Your task to perform on an android device: toggle show notifications on the lock screen Image 0: 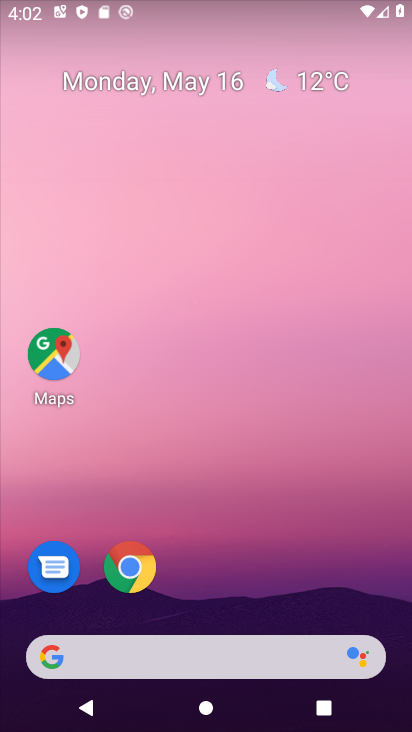
Step 0: drag from (329, 455) to (56, 17)
Your task to perform on an android device: toggle show notifications on the lock screen Image 1: 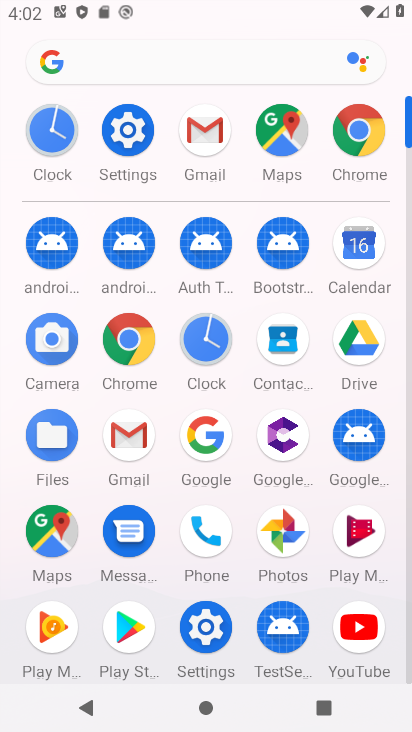
Step 1: drag from (6, 516) to (0, 266)
Your task to perform on an android device: toggle show notifications on the lock screen Image 2: 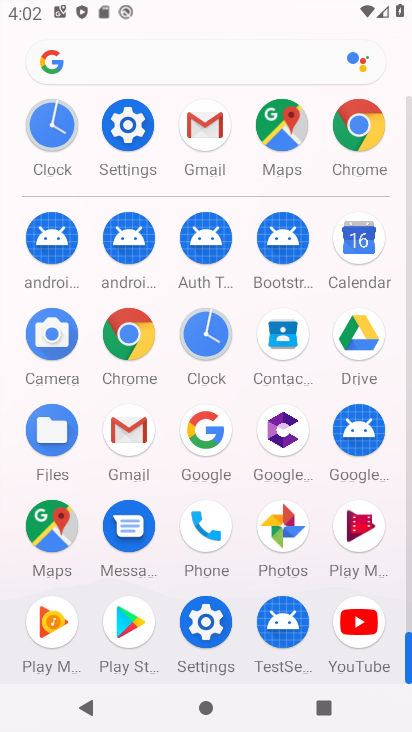
Step 2: click (204, 621)
Your task to perform on an android device: toggle show notifications on the lock screen Image 3: 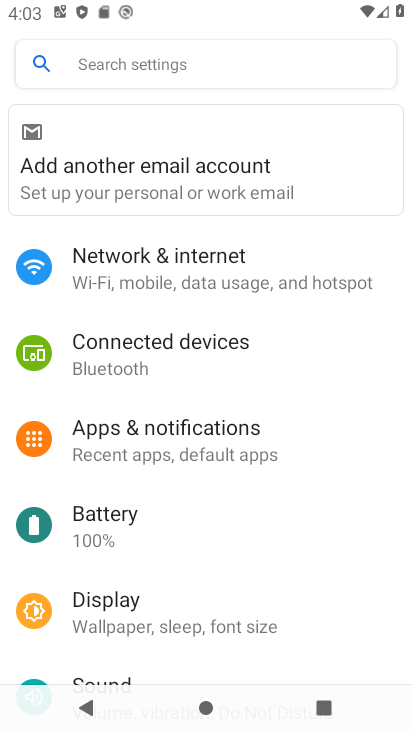
Step 3: click (227, 432)
Your task to perform on an android device: toggle show notifications on the lock screen Image 4: 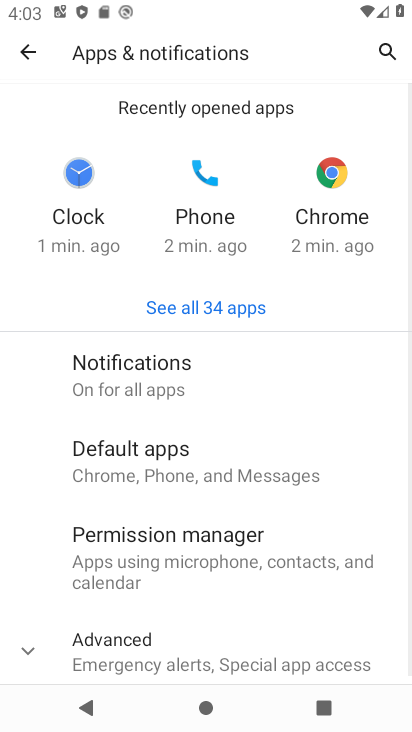
Step 4: click (207, 372)
Your task to perform on an android device: toggle show notifications on the lock screen Image 5: 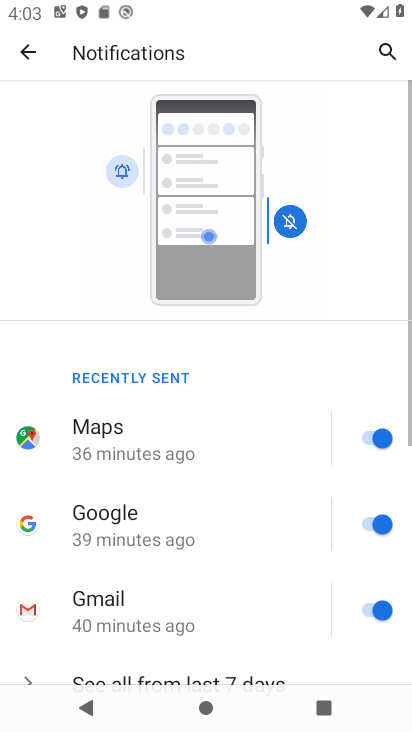
Step 5: drag from (206, 552) to (209, 130)
Your task to perform on an android device: toggle show notifications on the lock screen Image 6: 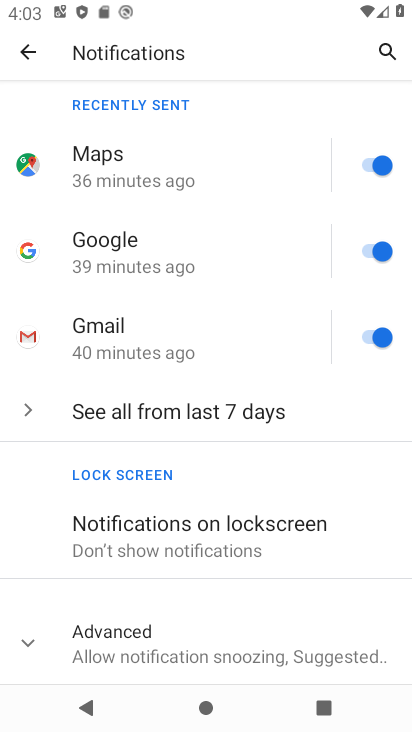
Step 6: drag from (208, 592) to (208, 222)
Your task to perform on an android device: toggle show notifications on the lock screen Image 7: 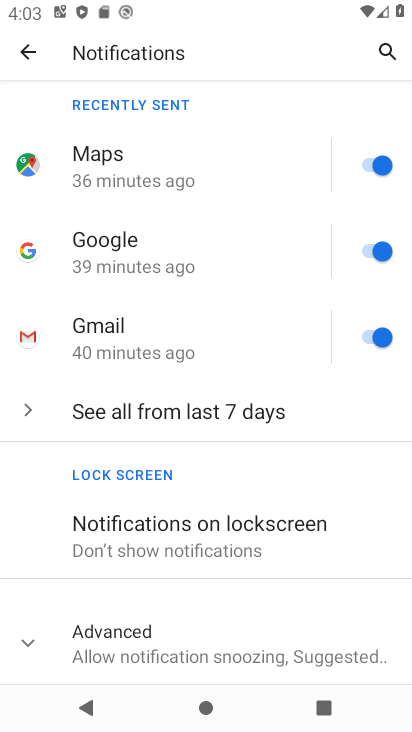
Step 7: click (39, 642)
Your task to perform on an android device: toggle show notifications on the lock screen Image 8: 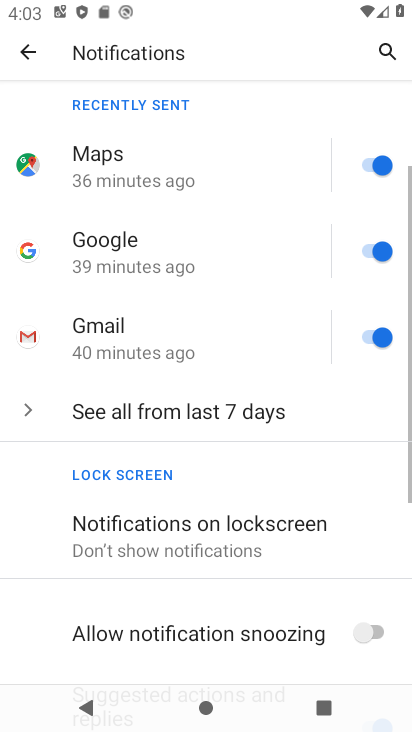
Step 8: drag from (223, 587) to (267, 202)
Your task to perform on an android device: toggle show notifications on the lock screen Image 9: 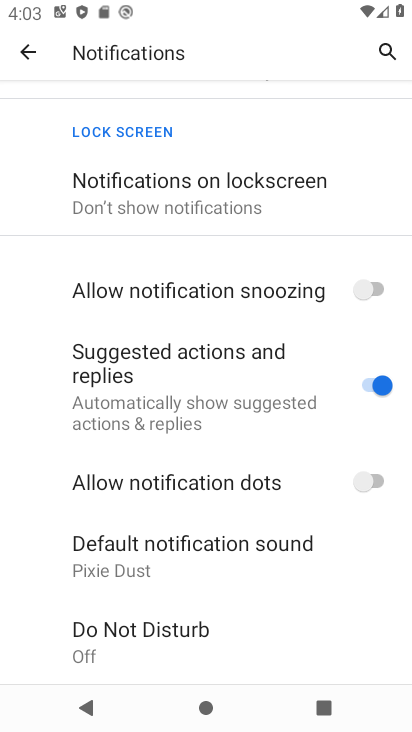
Step 9: click (363, 484)
Your task to perform on an android device: toggle show notifications on the lock screen Image 10: 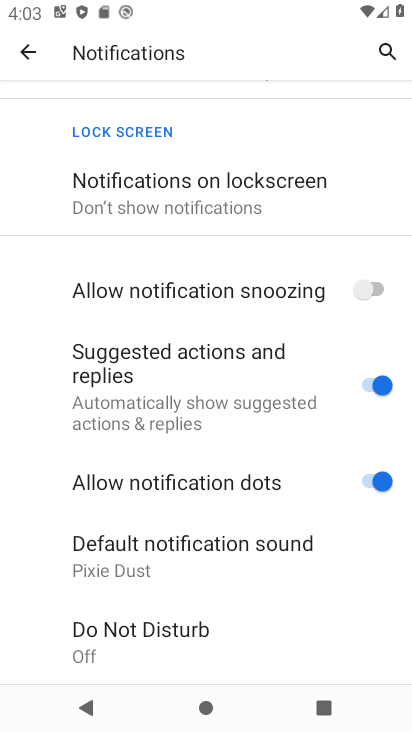
Step 10: task complete